Your task to perform on an android device: Show me productivity apps on the Play Store Image 0: 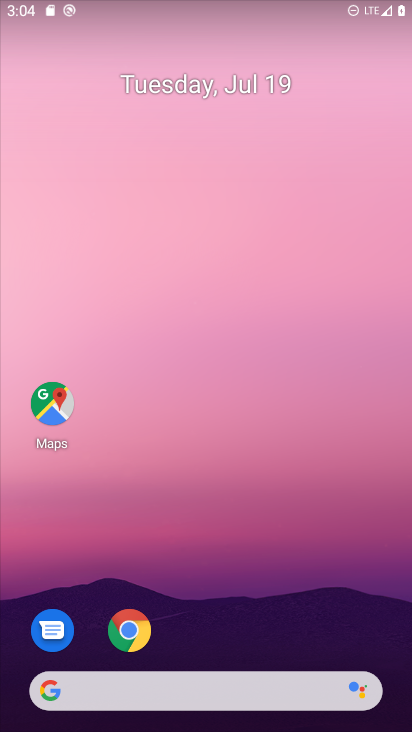
Step 0: drag from (362, 633) to (330, 124)
Your task to perform on an android device: Show me productivity apps on the Play Store Image 1: 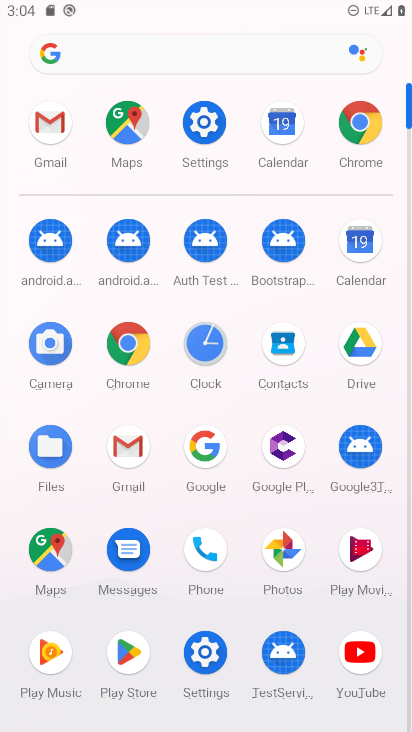
Step 1: click (130, 649)
Your task to perform on an android device: Show me productivity apps on the Play Store Image 2: 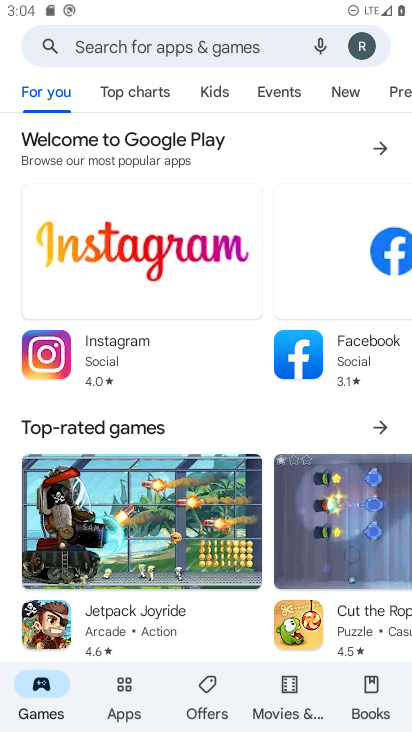
Step 2: click (128, 690)
Your task to perform on an android device: Show me productivity apps on the Play Store Image 3: 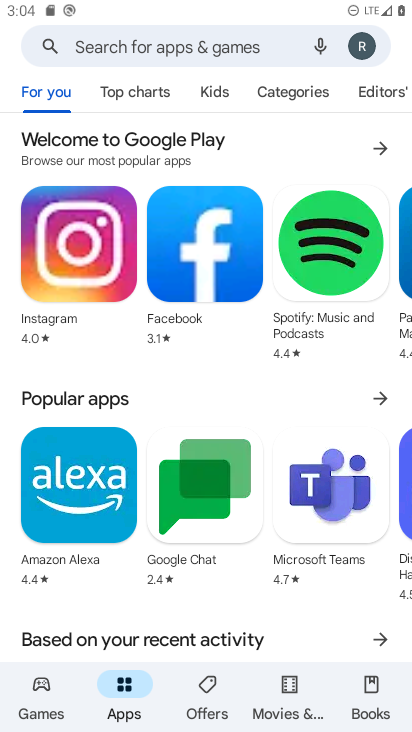
Step 3: click (289, 88)
Your task to perform on an android device: Show me productivity apps on the Play Store Image 4: 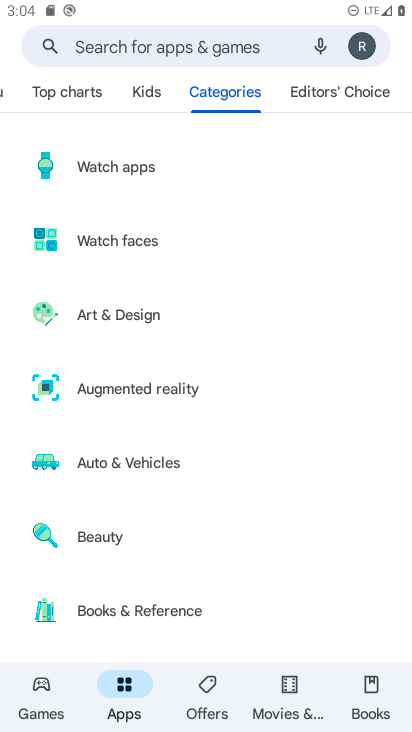
Step 4: drag from (200, 522) to (218, 152)
Your task to perform on an android device: Show me productivity apps on the Play Store Image 5: 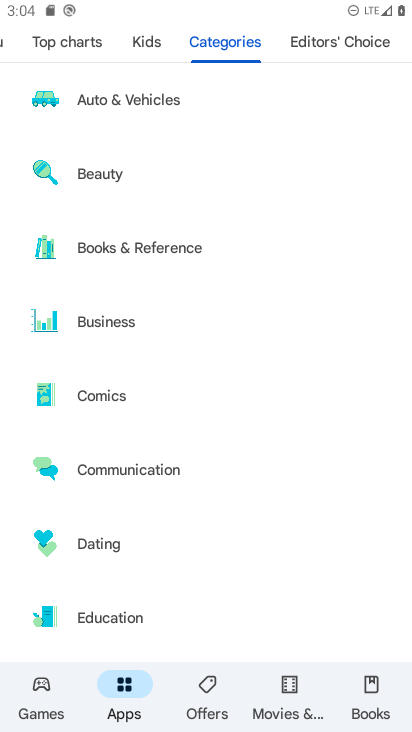
Step 5: drag from (236, 545) to (238, 175)
Your task to perform on an android device: Show me productivity apps on the Play Store Image 6: 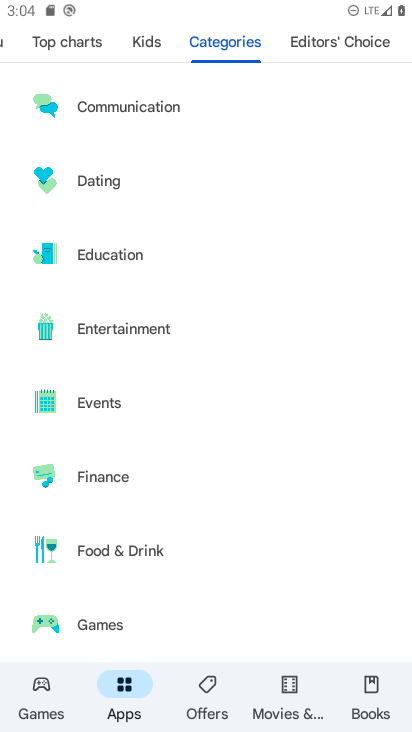
Step 6: drag from (179, 593) to (199, 135)
Your task to perform on an android device: Show me productivity apps on the Play Store Image 7: 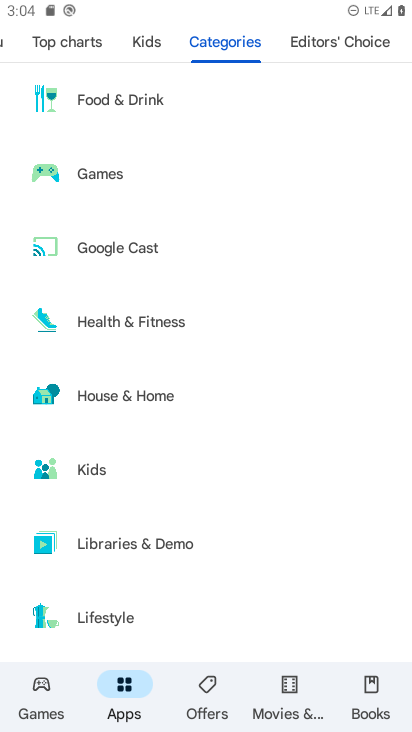
Step 7: drag from (224, 583) to (201, 127)
Your task to perform on an android device: Show me productivity apps on the Play Store Image 8: 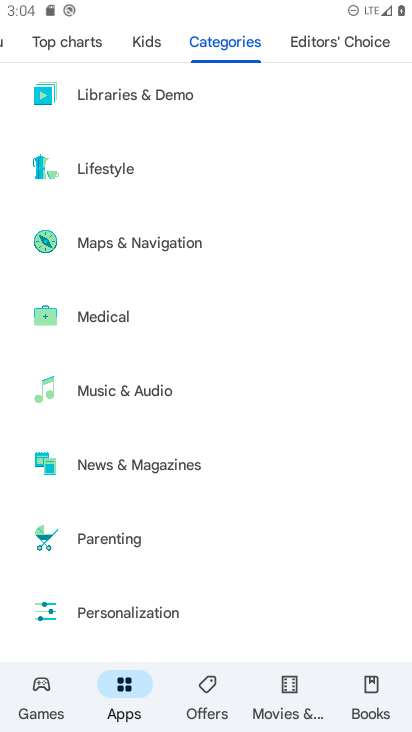
Step 8: drag from (203, 591) to (244, 133)
Your task to perform on an android device: Show me productivity apps on the Play Store Image 9: 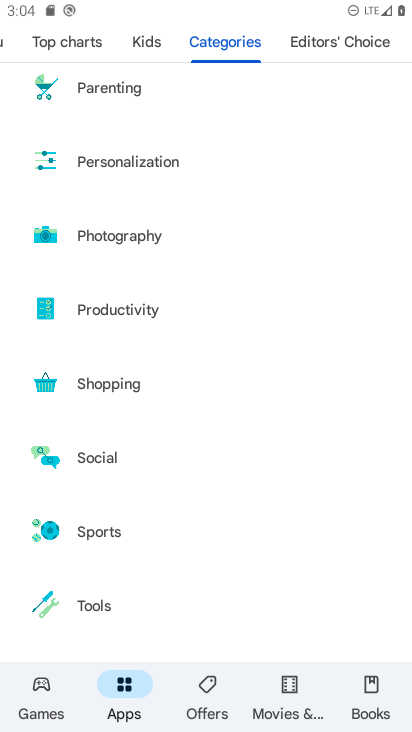
Step 9: click (115, 318)
Your task to perform on an android device: Show me productivity apps on the Play Store Image 10: 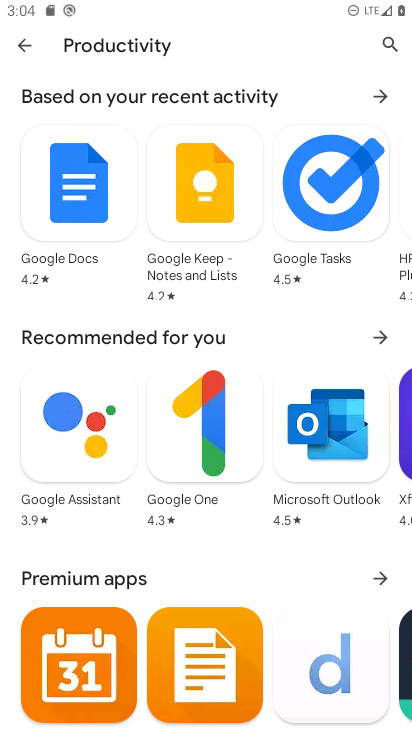
Step 10: drag from (274, 578) to (274, 77)
Your task to perform on an android device: Show me productivity apps on the Play Store Image 11: 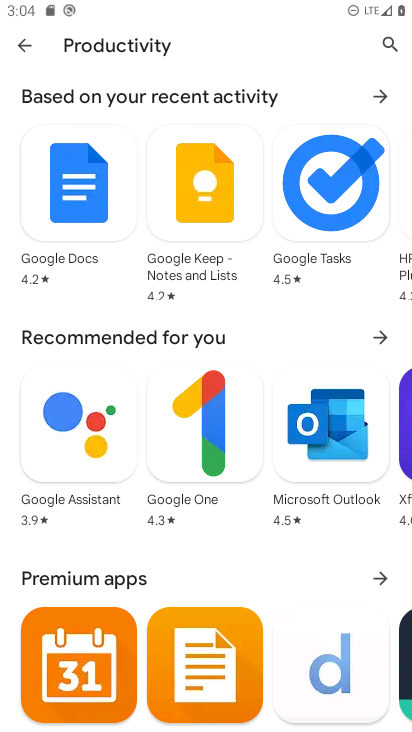
Step 11: drag from (262, 569) to (261, 132)
Your task to perform on an android device: Show me productivity apps on the Play Store Image 12: 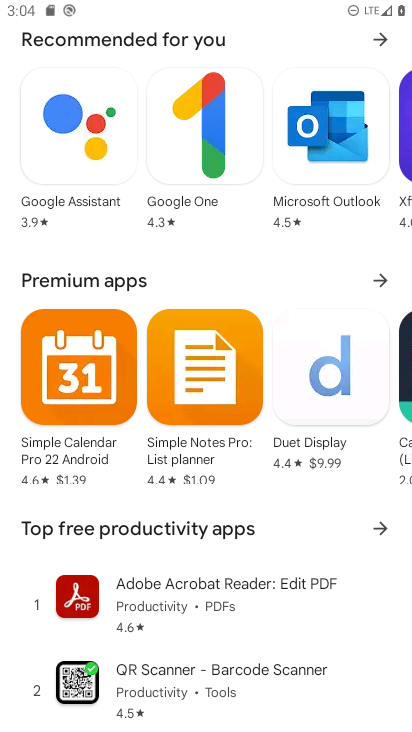
Step 12: drag from (275, 536) to (248, 73)
Your task to perform on an android device: Show me productivity apps on the Play Store Image 13: 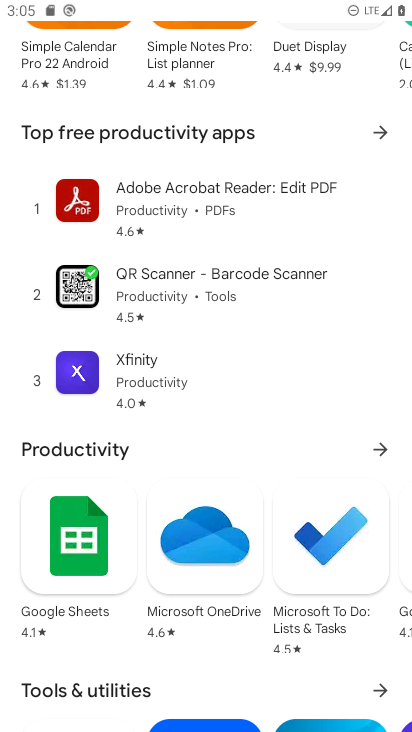
Step 13: click (383, 446)
Your task to perform on an android device: Show me productivity apps on the Play Store Image 14: 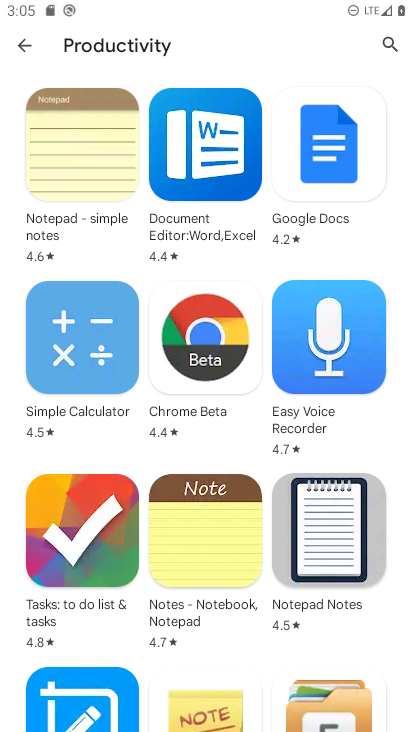
Step 14: task complete